Your task to perform on an android device: Show me popular videos on Youtube Image 0: 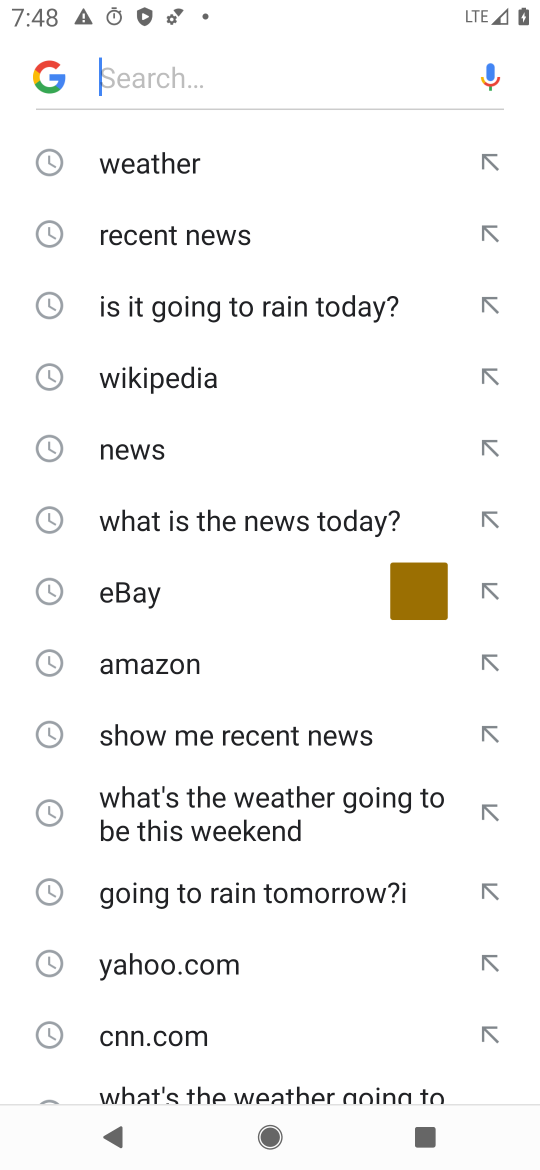
Step 0: drag from (215, 936) to (272, 389)
Your task to perform on an android device: Show me popular videos on Youtube Image 1: 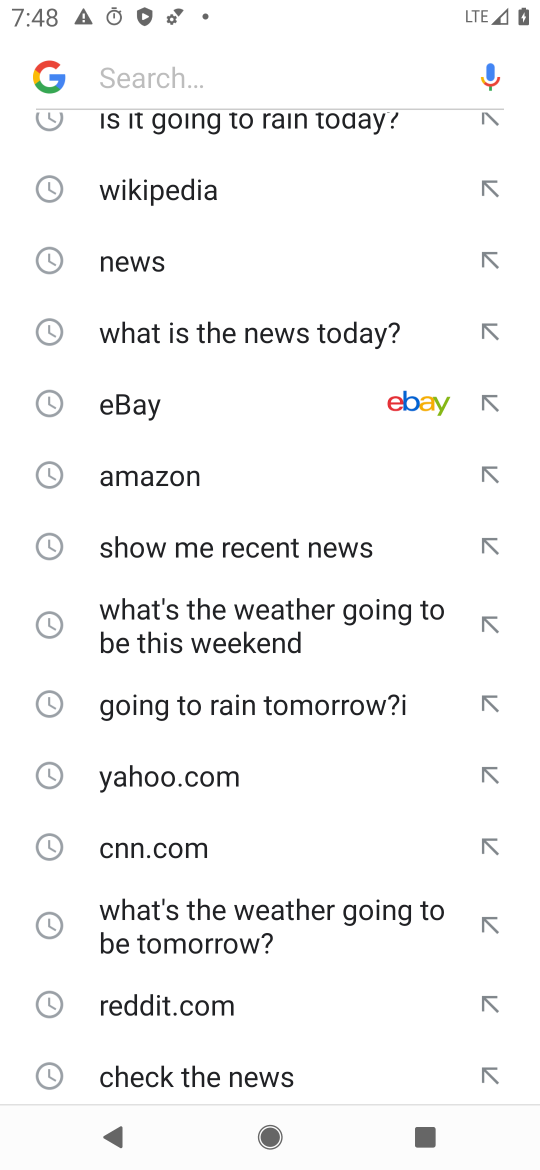
Step 1: press home button
Your task to perform on an android device: Show me popular videos on Youtube Image 2: 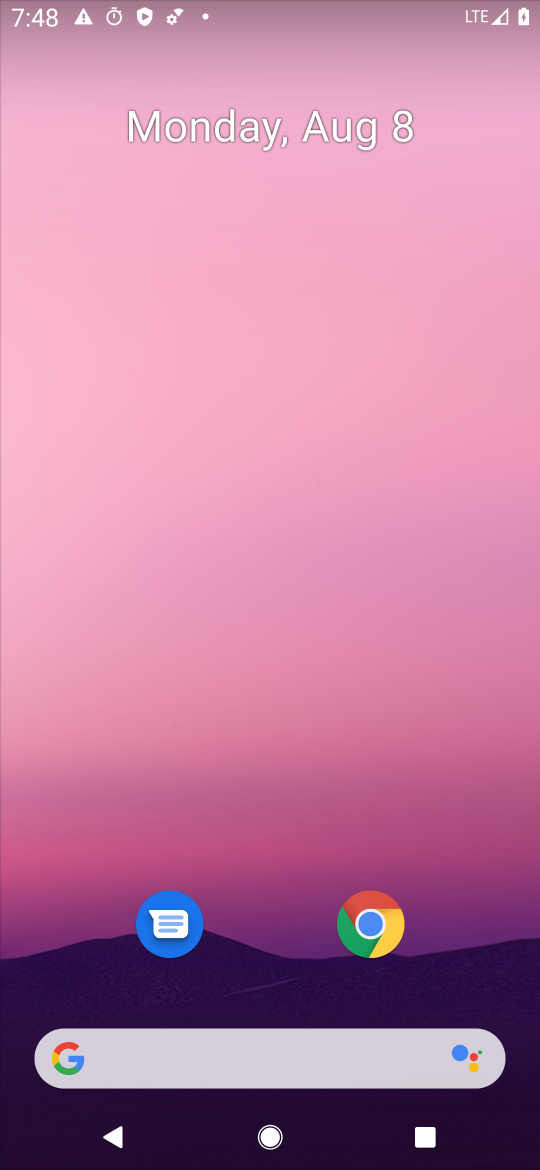
Step 2: drag from (273, 948) to (415, 268)
Your task to perform on an android device: Show me popular videos on Youtube Image 3: 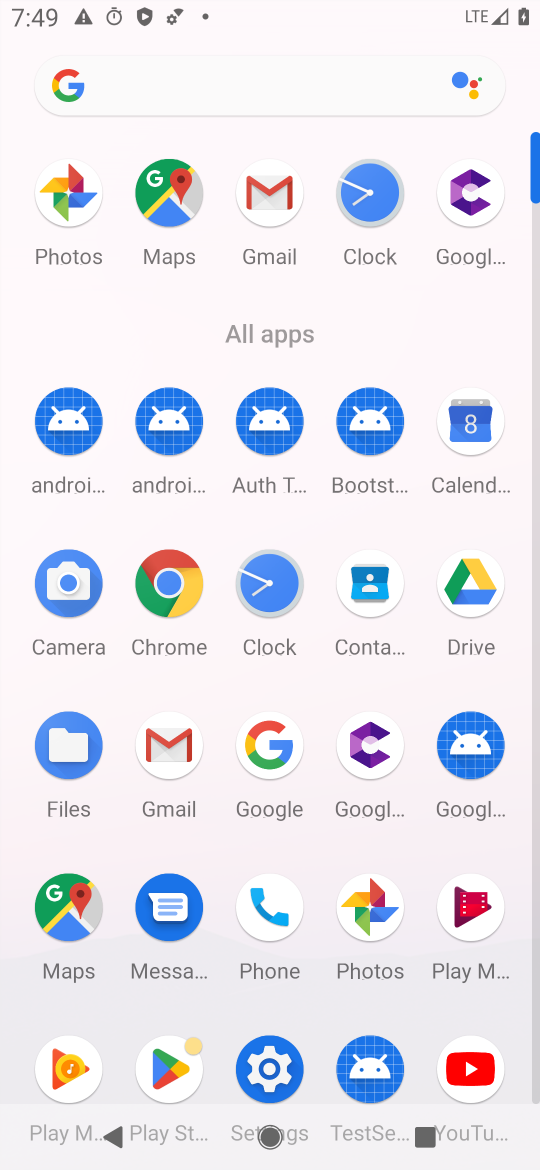
Step 3: click (452, 1062)
Your task to perform on an android device: Show me popular videos on Youtube Image 4: 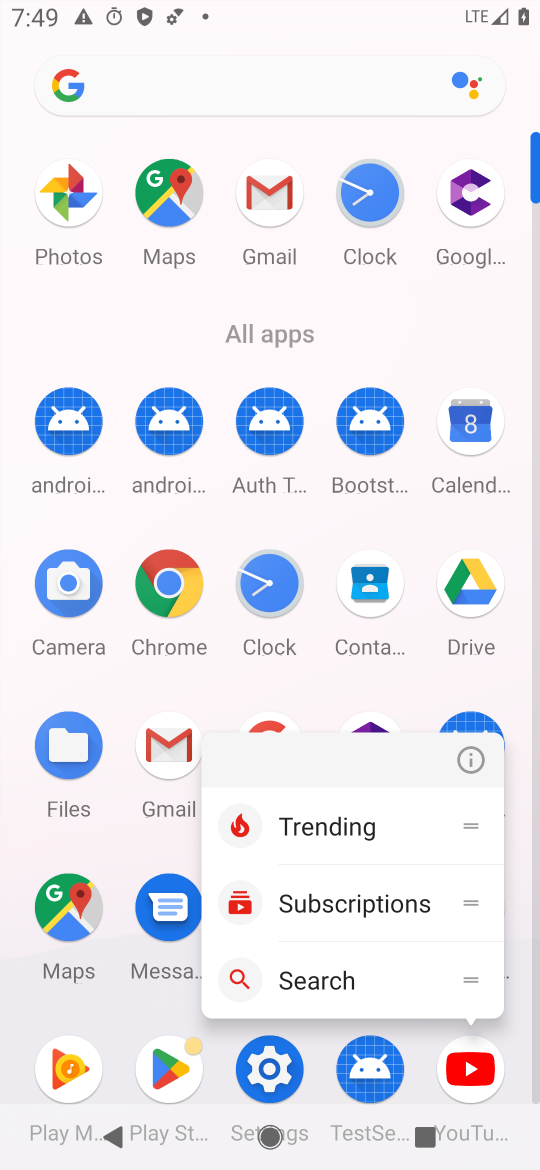
Step 4: click (472, 755)
Your task to perform on an android device: Show me popular videos on Youtube Image 5: 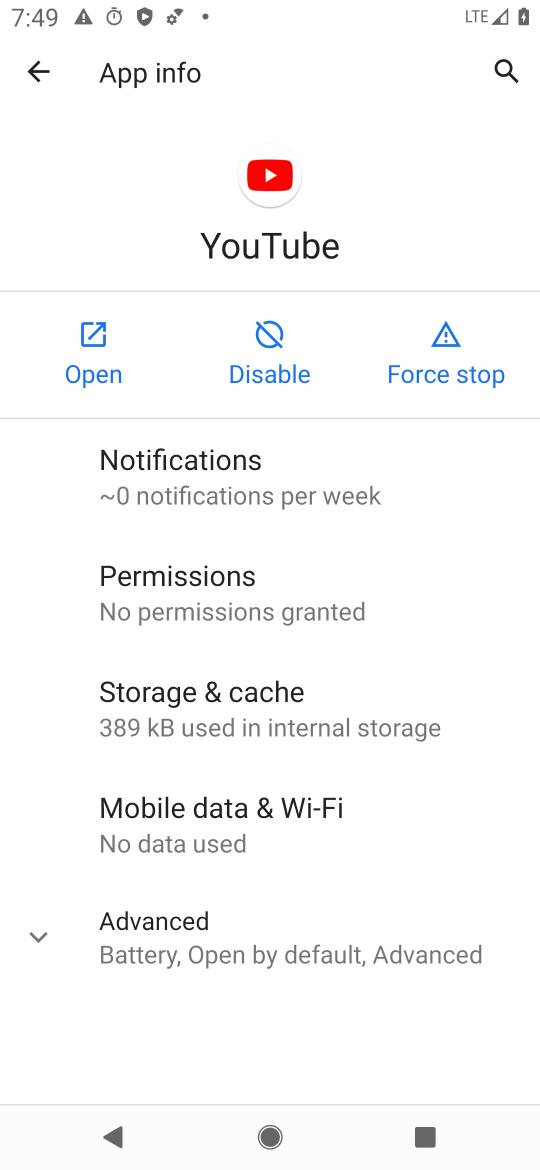
Step 5: click (90, 336)
Your task to perform on an android device: Show me popular videos on Youtube Image 6: 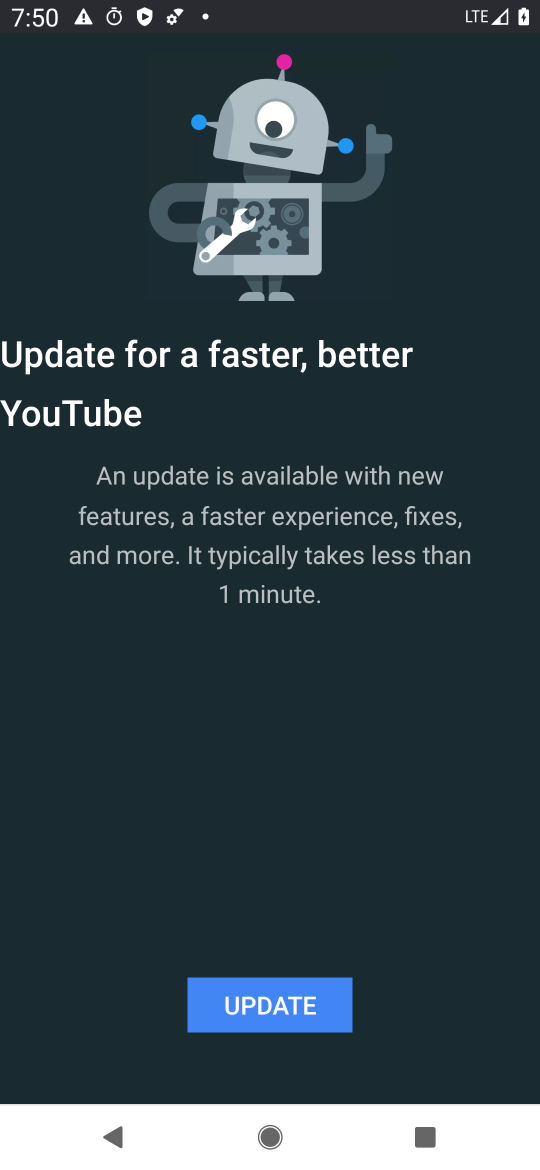
Step 6: task complete